Your task to perform on an android device: turn on location history Image 0: 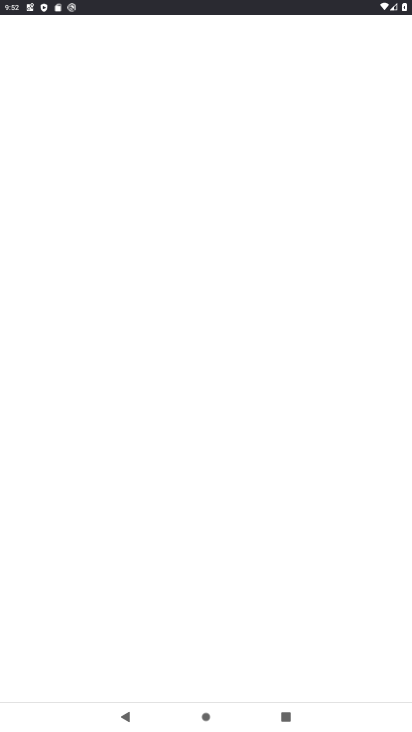
Step 0: press home button
Your task to perform on an android device: turn on location history Image 1: 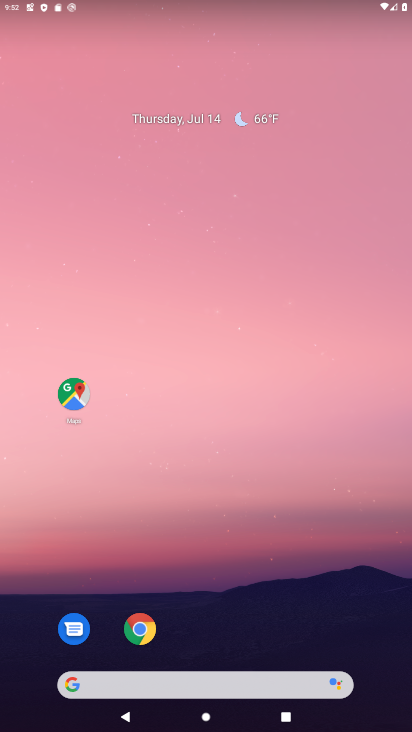
Step 1: drag from (319, 606) to (313, 0)
Your task to perform on an android device: turn on location history Image 2: 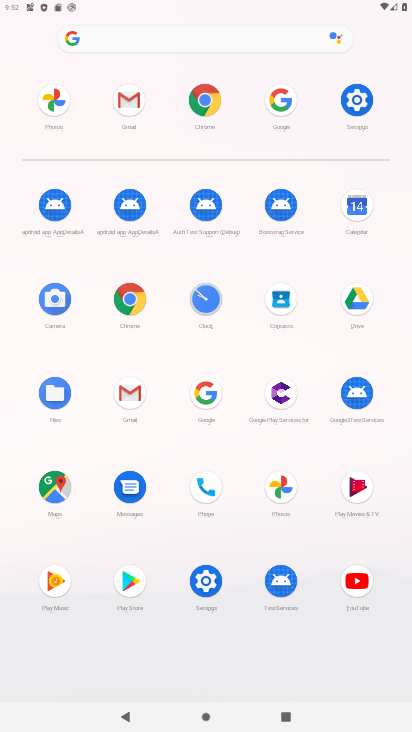
Step 2: click (350, 94)
Your task to perform on an android device: turn on location history Image 3: 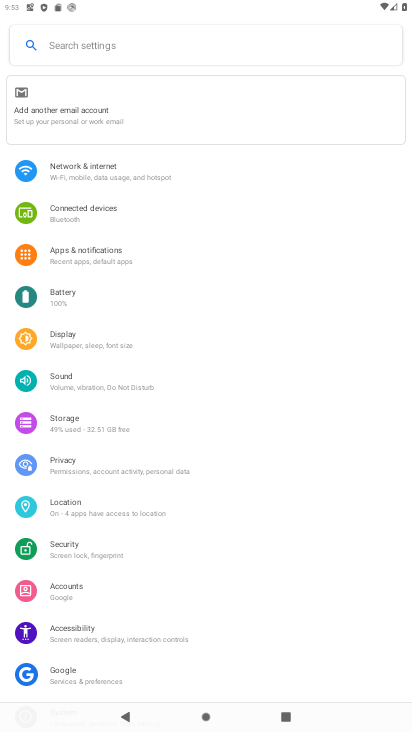
Step 3: click (81, 498)
Your task to perform on an android device: turn on location history Image 4: 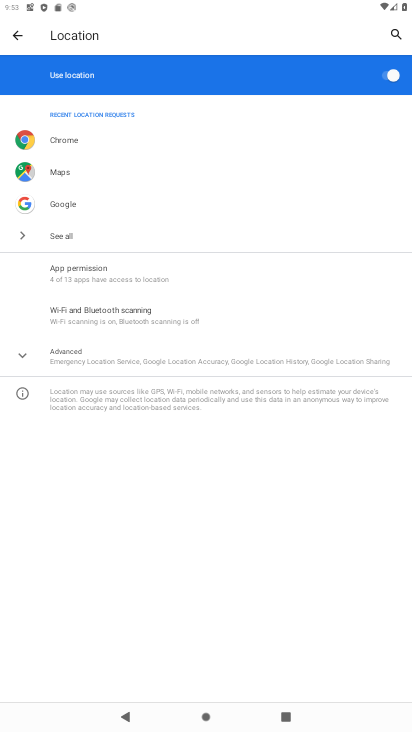
Step 4: task complete